Your task to perform on an android device: empty trash in the gmail app Image 0: 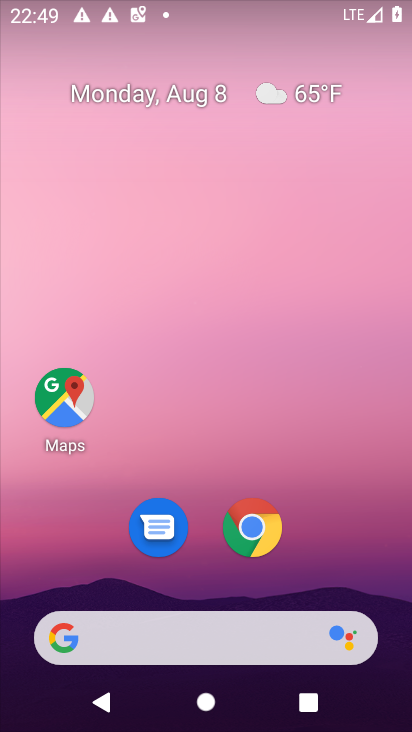
Step 0: drag from (390, 686) to (323, 205)
Your task to perform on an android device: empty trash in the gmail app Image 1: 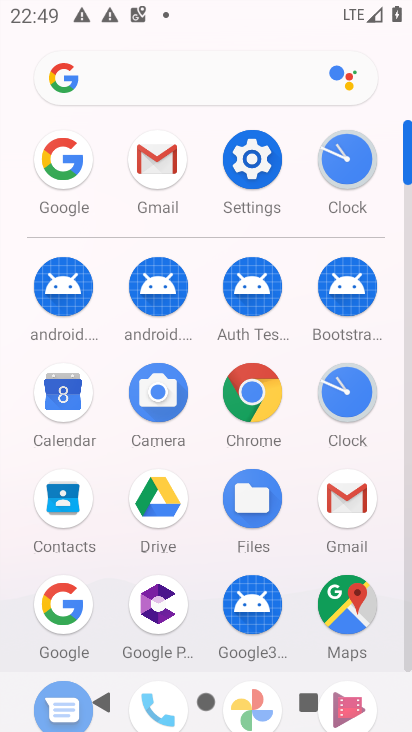
Step 1: click (151, 168)
Your task to perform on an android device: empty trash in the gmail app Image 2: 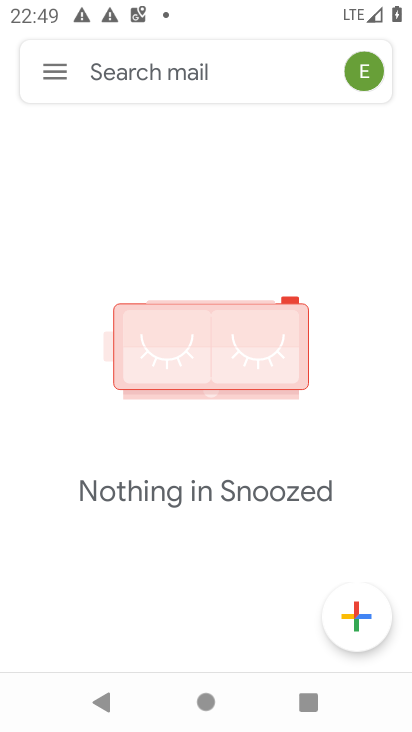
Step 2: click (54, 61)
Your task to perform on an android device: empty trash in the gmail app Image 3: 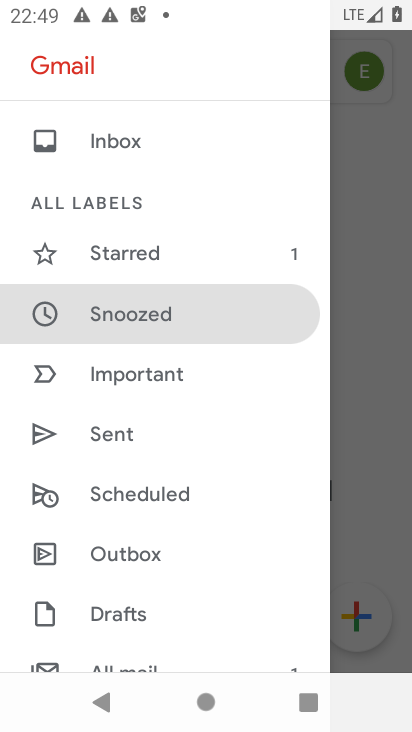
Step 3: drag from (223, 576) to (215, 367)
Your task to perform on an android device: empty trash in the gmail app Image 4: 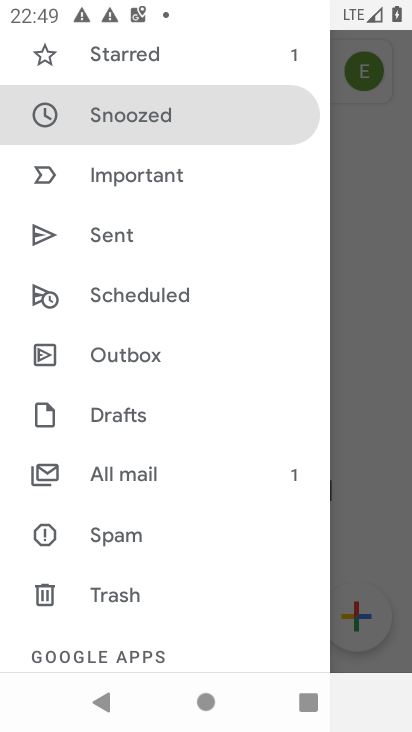
Step 4: click (97, 588)
Your task to perform on an android device: empty trash in the gmail app Image 5: 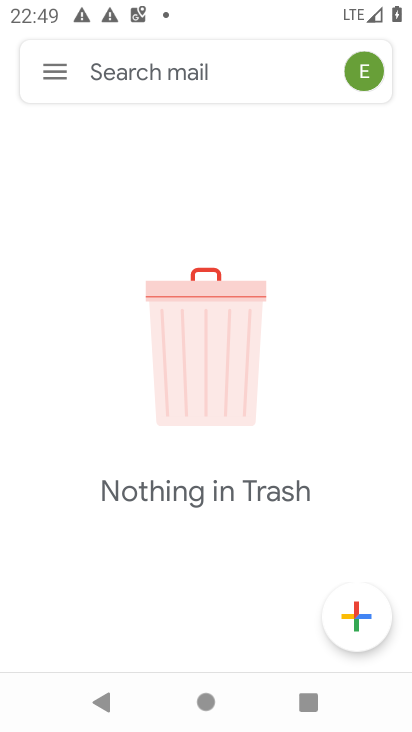
Step 5: task complete